Your task to perform on an android device: change the clock style Image 0: 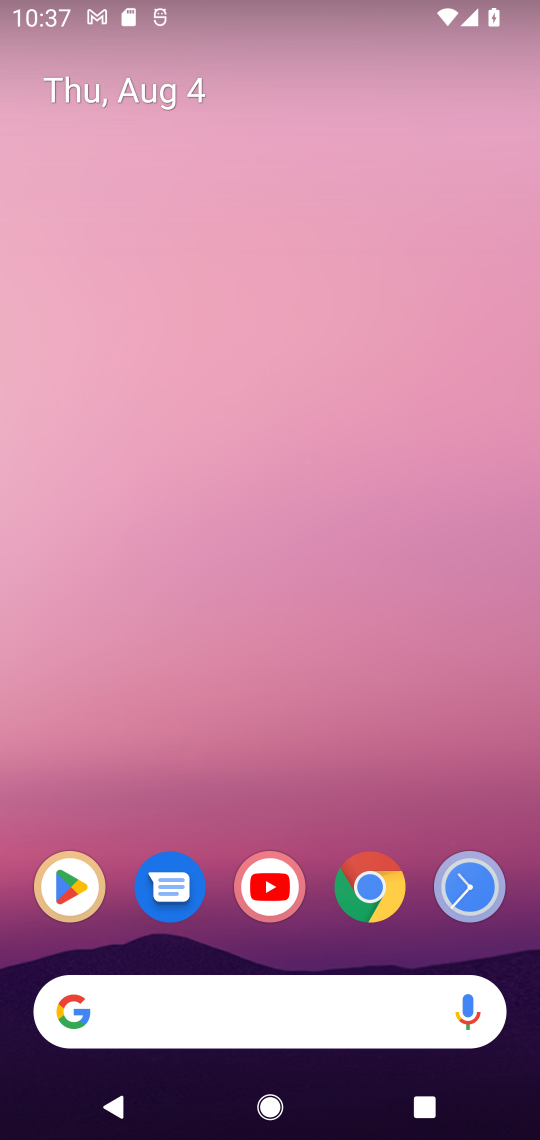
Step 0: drag from (251, 655) to (234, 272)
Your task to perform on an android device: change the clock style Image 1: 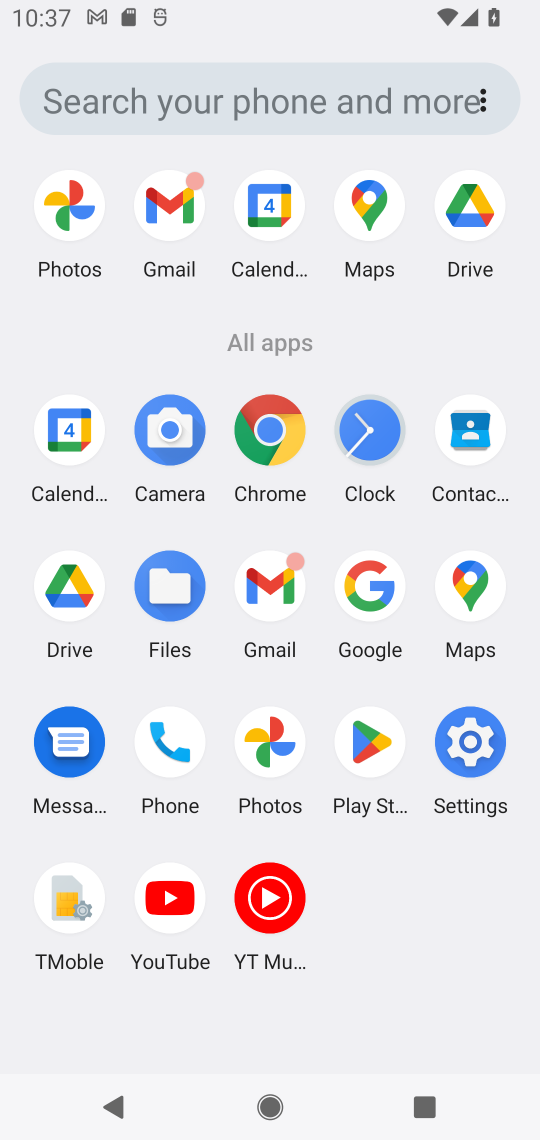
Step 1: click (359, 443)
Your task to perform on an android device: change the clock style Image 2: 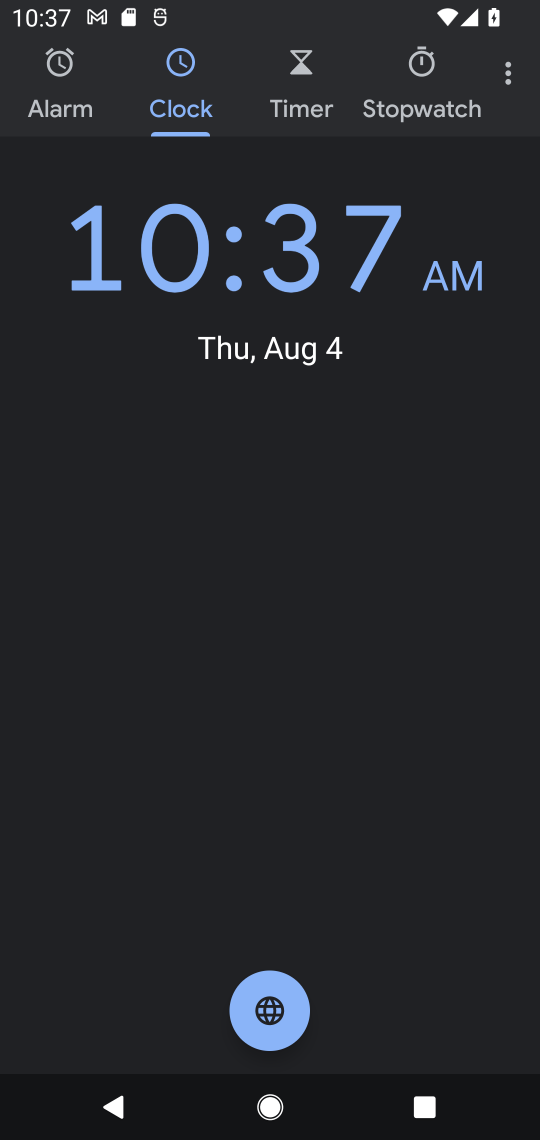
Step 2: click (511, 75)
Your task to perform on an android device: change the clock style Image 3: 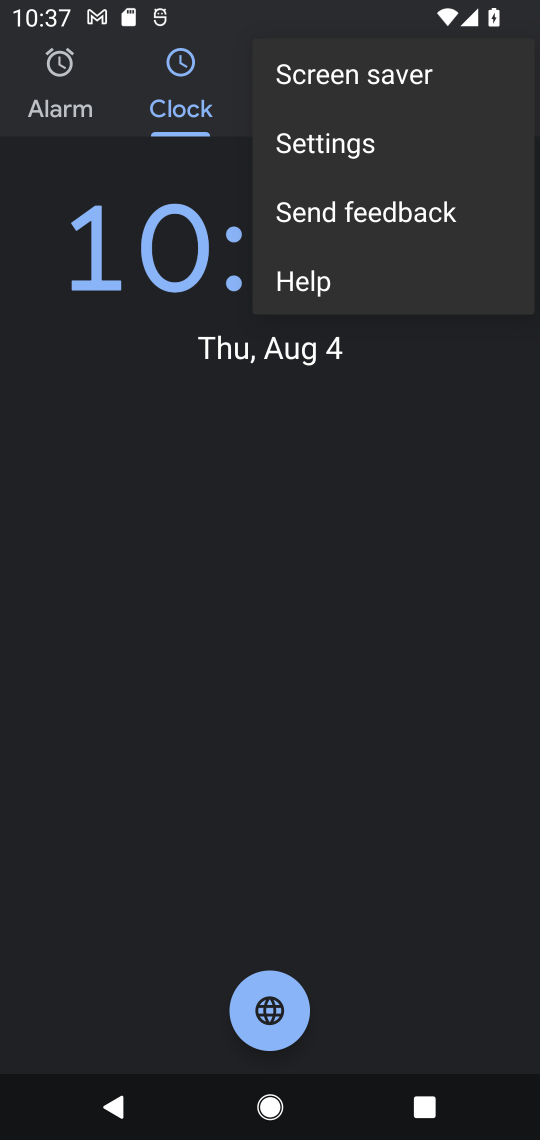
Step 3: click (369, 147)
Your task to perform on an android device: change the clock style Image 4: 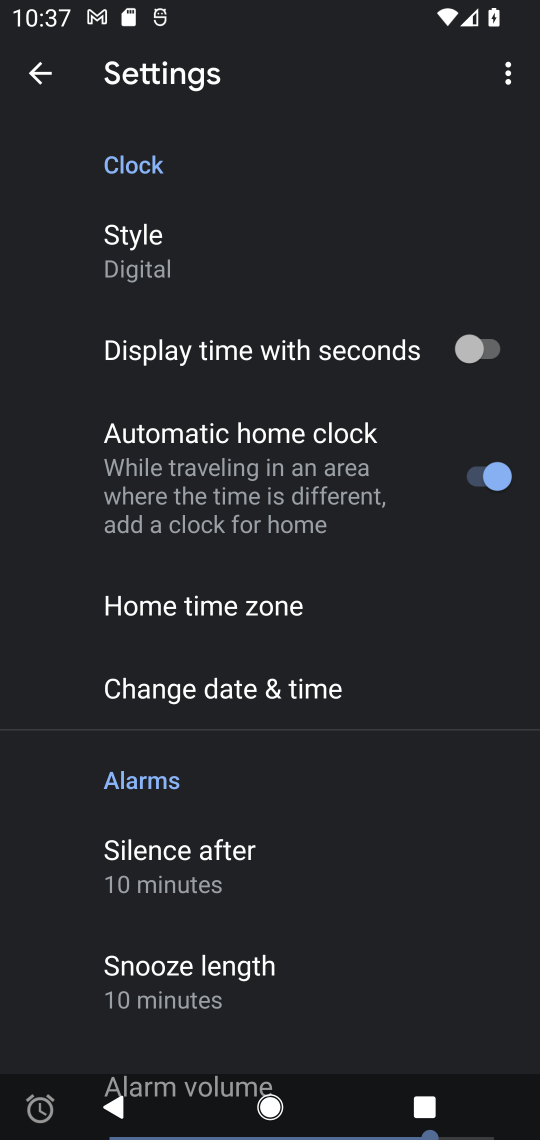
Step 4: click (162, 275)
Your task to perform on an android device: change the clock style Image 5: 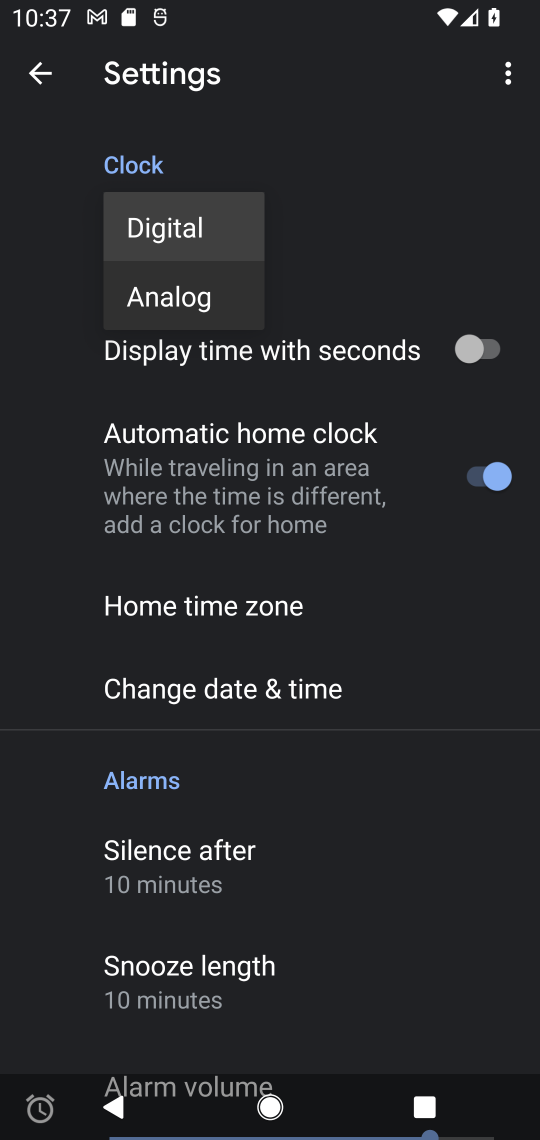
Step 5: click (185, 294)
Your task to perform on an android device: change the clock style Image 6: 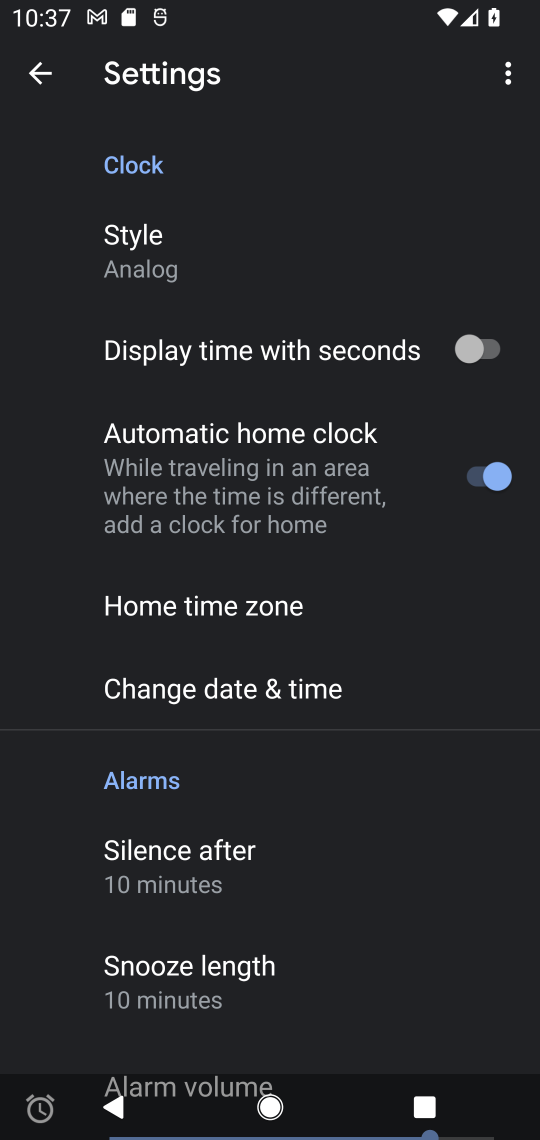
Step 6: task complete